Your task to perform on an android device: Open the calendar app, open the side menu, and click the "Day" option Image 0: 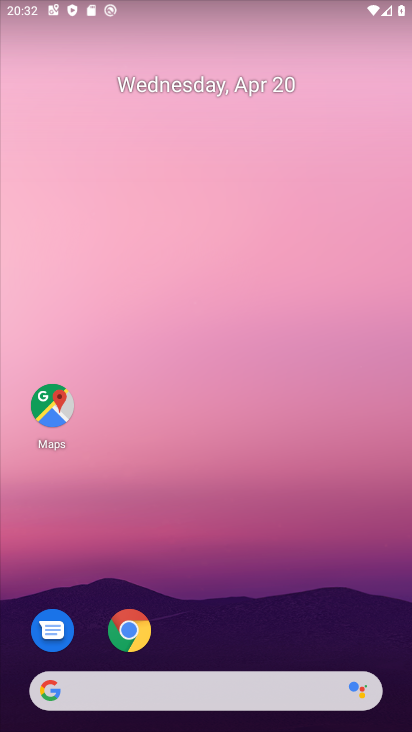
Step 0: drag from (216, 623) to (192, 18)
Your task to perform on an android device: Open the calendar app, open the side menu, and click the "Day" option Image 1: 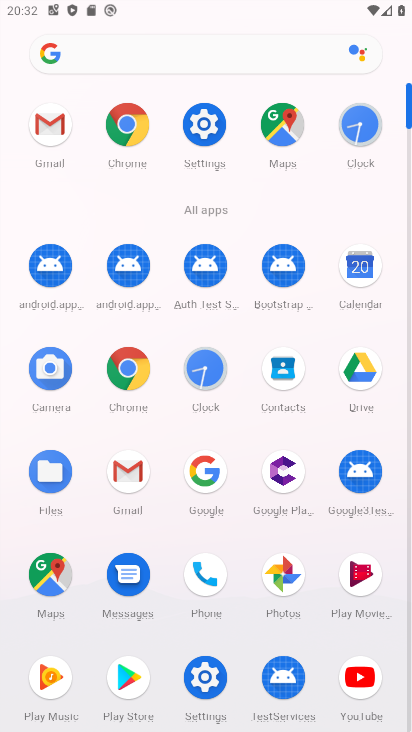
Step 1: click (366, 264)
Your task to perform on an android device: Open the calendar app, open the side menu, and click the "Day" option Image 2: 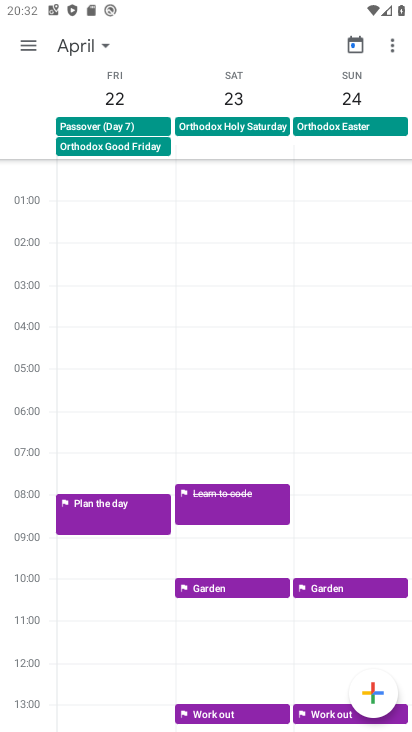
Step 2: click (37, 48)
Your task to perform on an android device: Open the calendar app, open the side menu, and click the "Day" option Image 3: 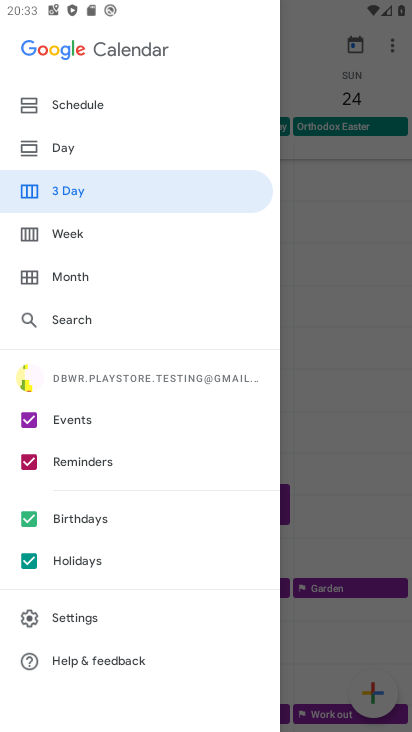
Step 3: click (57, 146)
Your task to perform on an android device: Open the calendar app, open the side menu, and click the "Day" option Image 4: 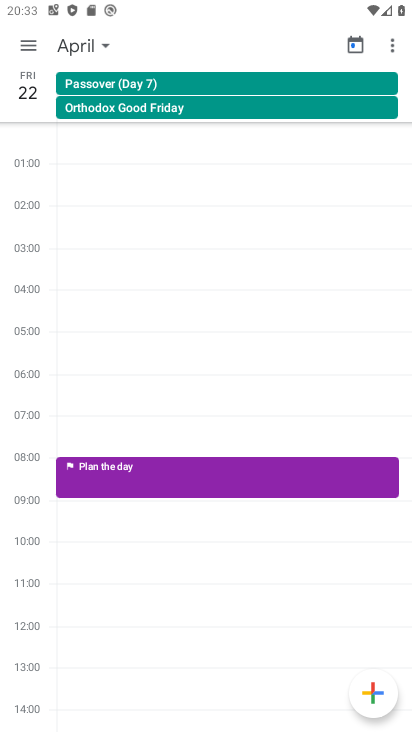
Step 4: task complete